Your task to perform on an android device: What is the recent news? Image 0: 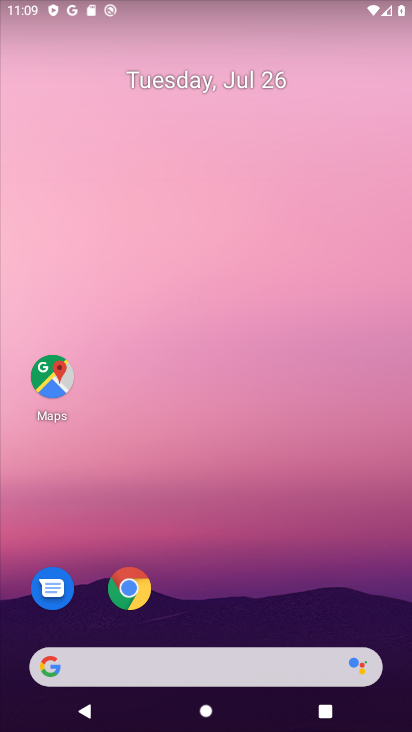
Step 0: press home button
Your task to perform on an android device: What is the recent news? Image 1: 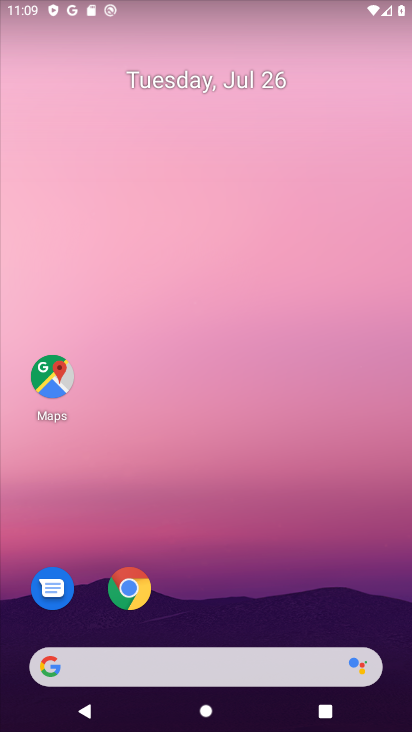
Step 1: task complete